Your task to perform on an android device: What is the recent news? Image 0: 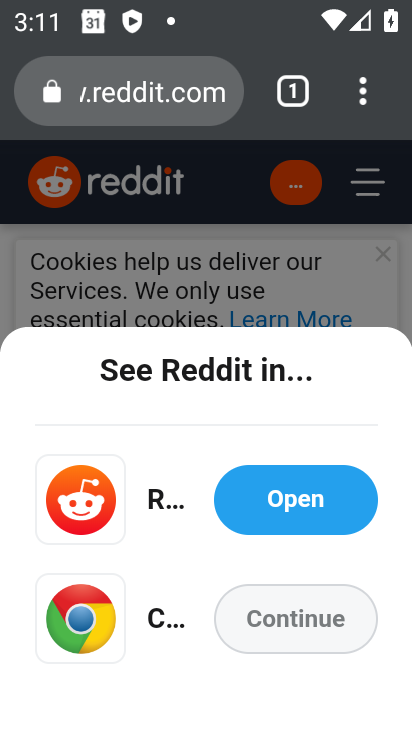
Step 0: press home button
Your task to perform on an android device: What is the recent news? Image 1: 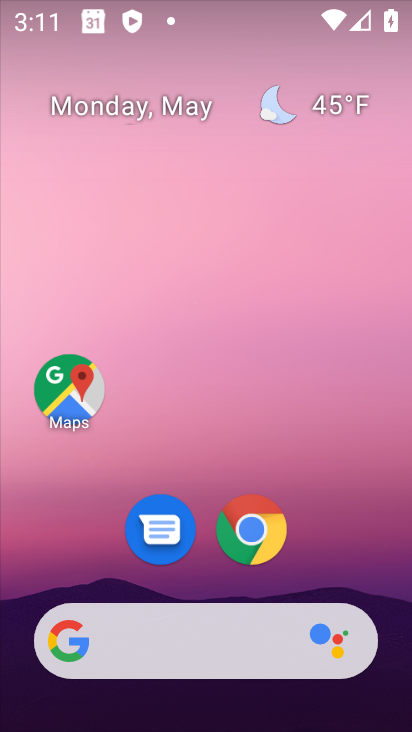
Step 1: drag from (357, 516) to (296, 129)
Your task to perform on an android device: What is the recent news? Image 2: 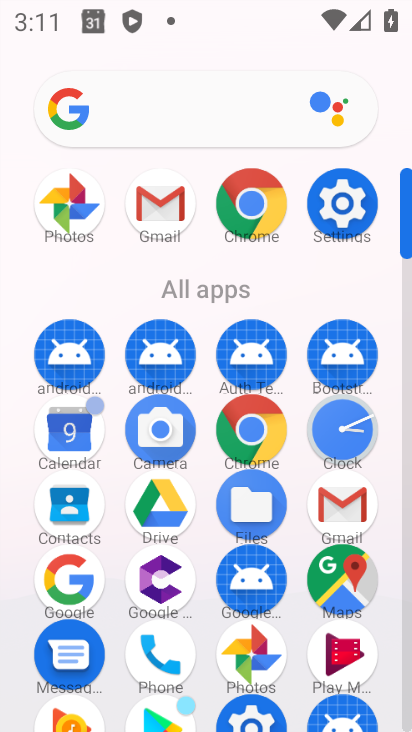
Step 2: click (182, 126)
Your task to perform on an android device: What is the recent news? Image 3: 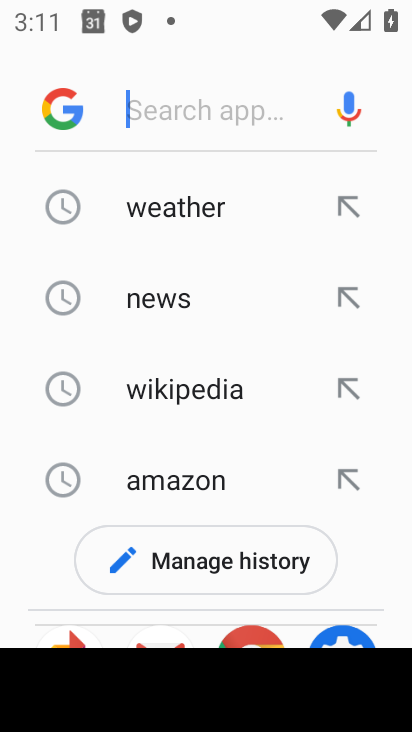
Step 3: click (188, 300)
Your task to perform on an android device: What is the recent news? Image 4: 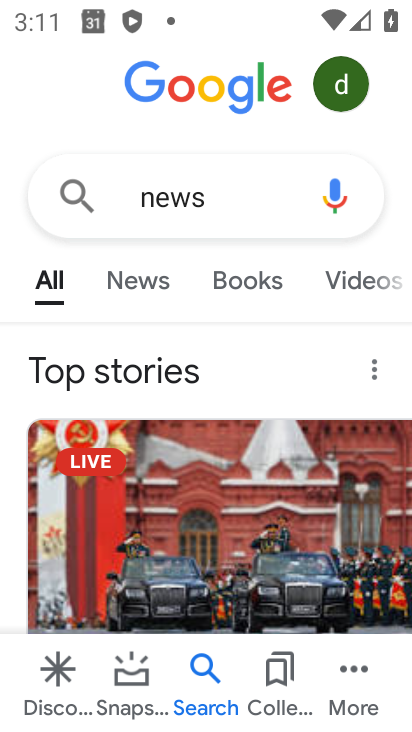
Step 4: task complete